Your task to perform on an android device: turn notification dots off Image 0: 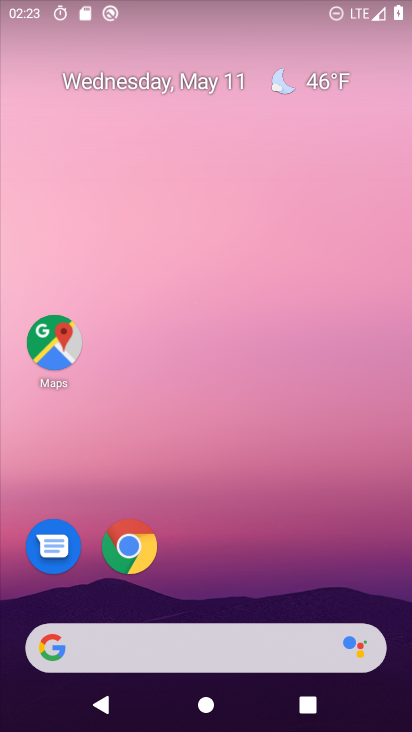
Step 0: drag from (278, 671) to (292, 155)
Your task to perform on an android device: turn notification dots off Image 1: 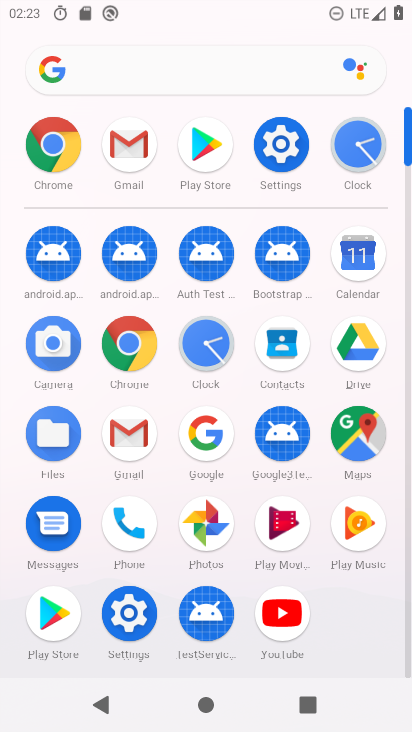
Step 1: click (290, 148)
Your task to perform on an android device: turn notification dots off Image 2: 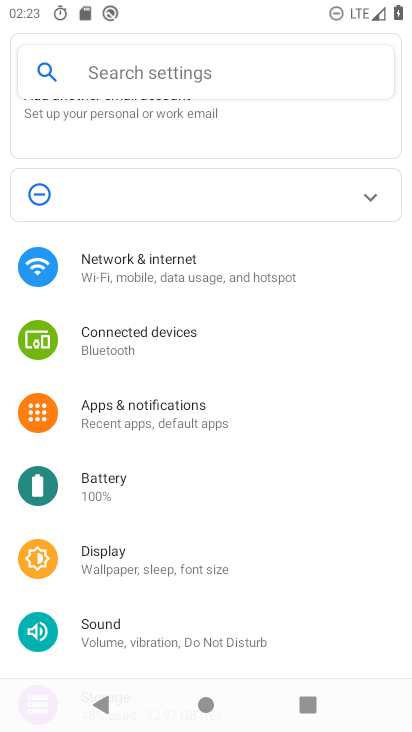
Step 2: click (217, 82)
Your task to perform on an android device: turn notification dots off Image 3: 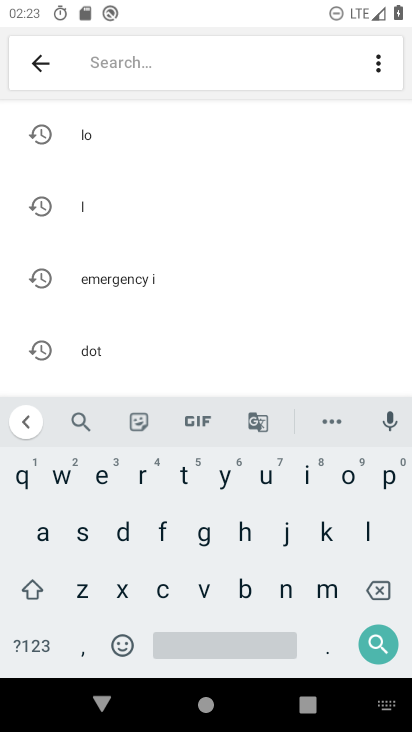
Step 3: click (119, 535)
Your task to perform on an android device: turn notification dots off Image 4: 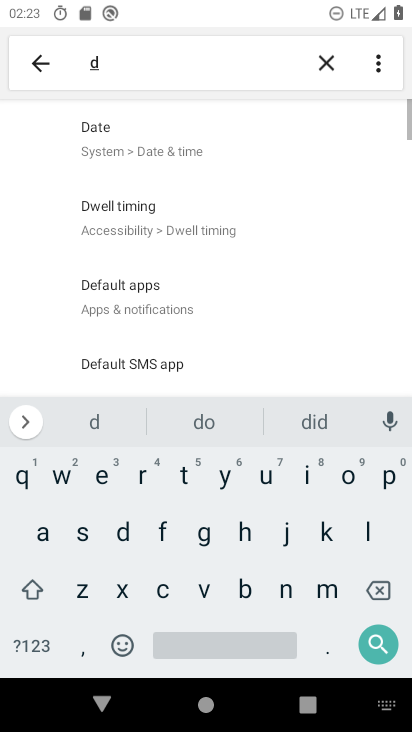
Step 4: click (346, 480)
Your task to perform on an android device: turn notification dots off Image 5: 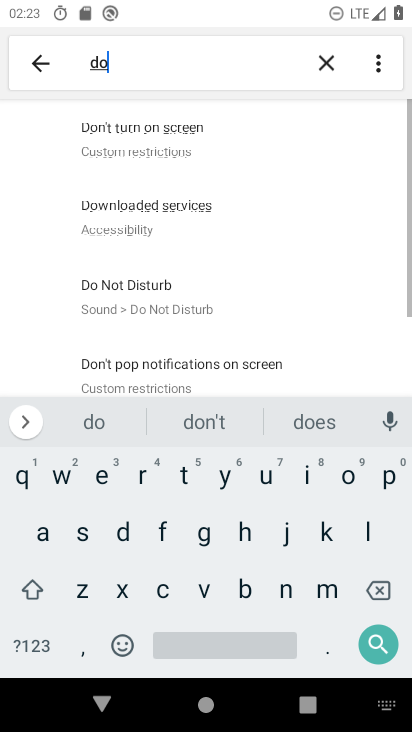
Step 5: click (188, 484)
Your task to perform on an android device: turn notification dots off Image 6: 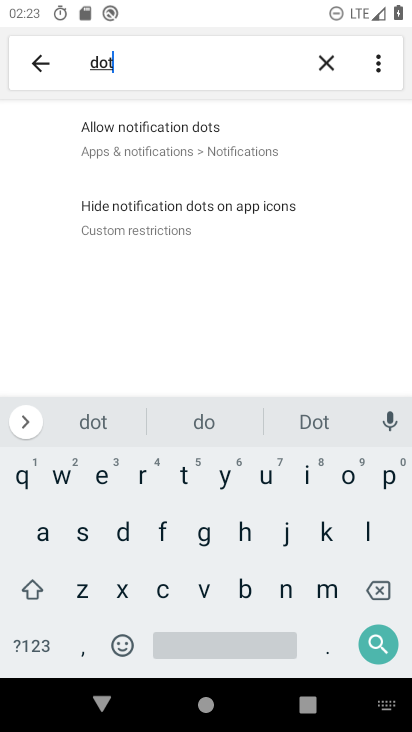
Step 6: click (171, 144)
Your task to perform on an android device: turn notification dots off Image 7: 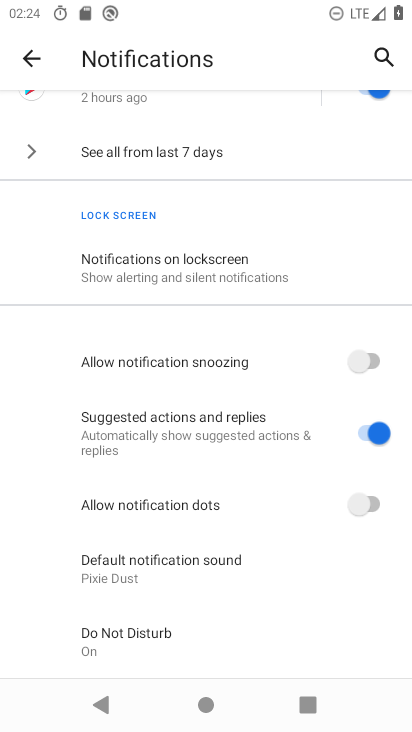
Step 7: click (185, 502)
Your task to perform on an android device: turn notification dots off Image 8: 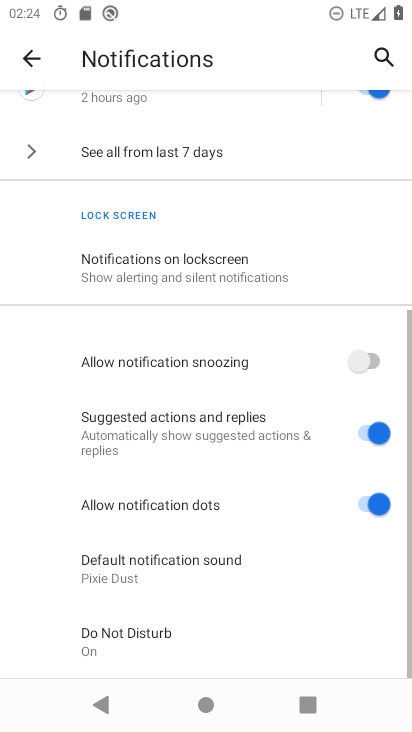
Step 8: click (185, 502)
Your task to perform on an android device: turn notification dots off Image 9: 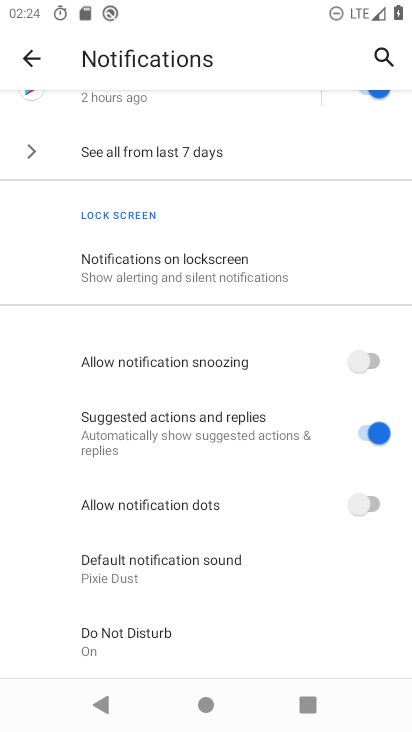
Step 9: task complete